Your task to perform on an android device: turn on bluetooth scan Image 0: 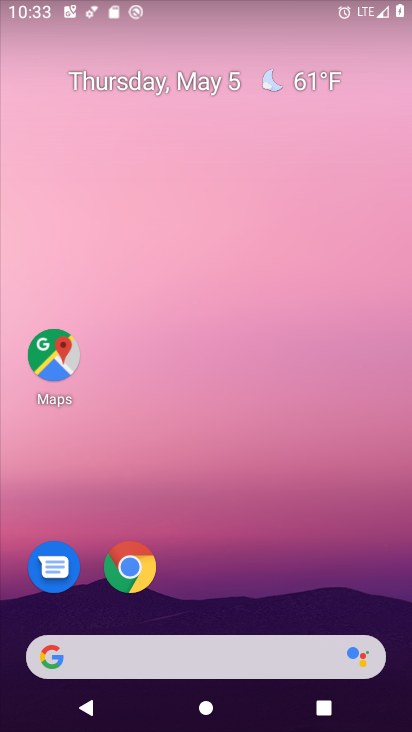
Step 0: drag from (247, 571) to (266, 77)
Your task to perform on an android device: turn on bluetooth scan Image 1: 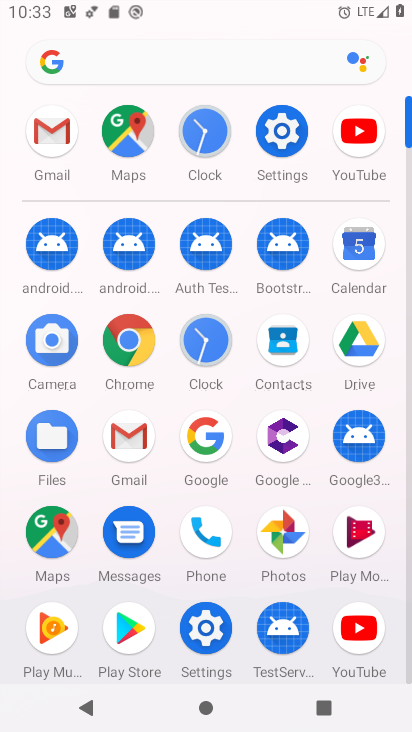
Step 1: click (275, 132)
Your task to perform on an android device: turn on bluetooth scan Image 2: 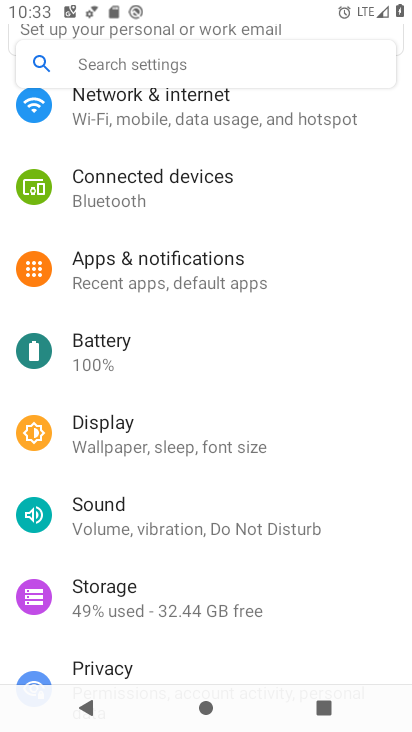
Step 2: drag from (226, 622) to (269, 335)
Your task to perform on an android device: turn on bluetooth scan Image 3: 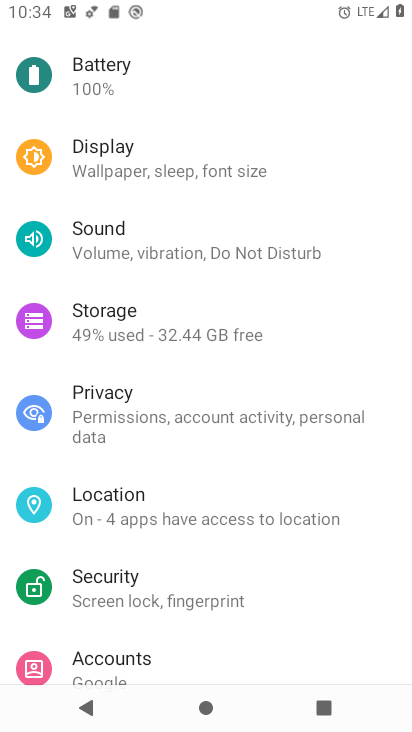
Step 3: click (239, 518)
Your task to perform on an android device: turn on bluetooth scan Image 4: 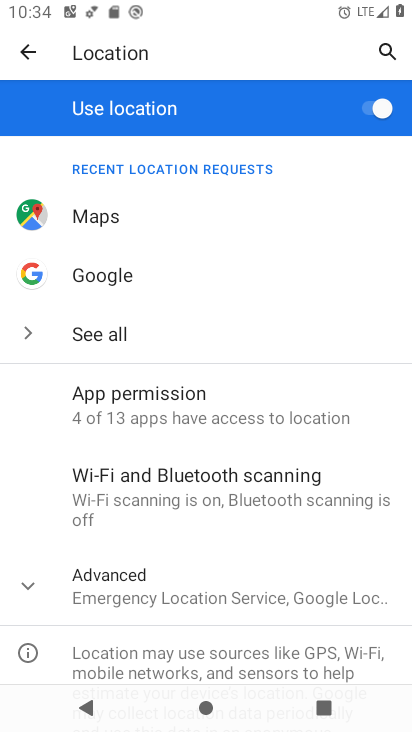
Step 4: click (259, 490)
Your task to perform on an android device: turn on bluetooth scan Image 5: 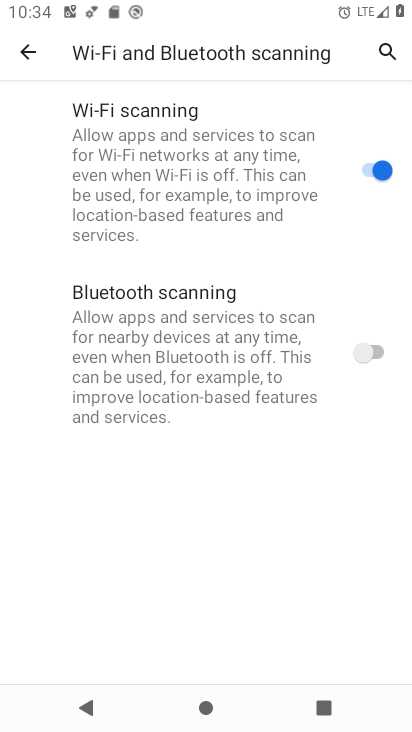
Step 5: click (380, 348)
Your task to perform on an android device: turn on bluetooth scan Image 6: 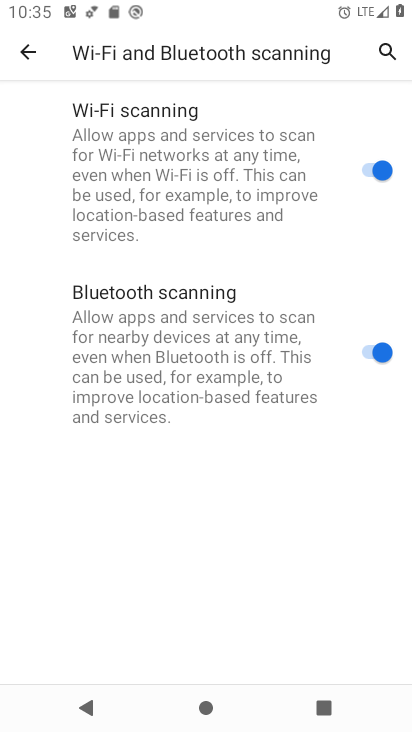
Step 6: task complete